Your task to perform on an android device: Open location settings Image 0: 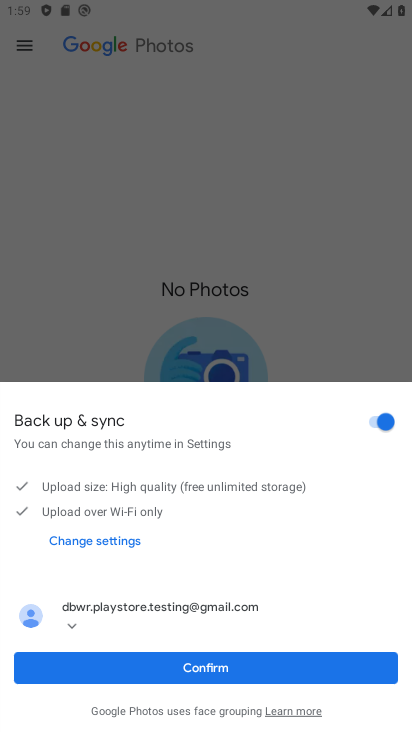
Step 0: press home button
Your task to perform on an android device: Open location settings Image 1: 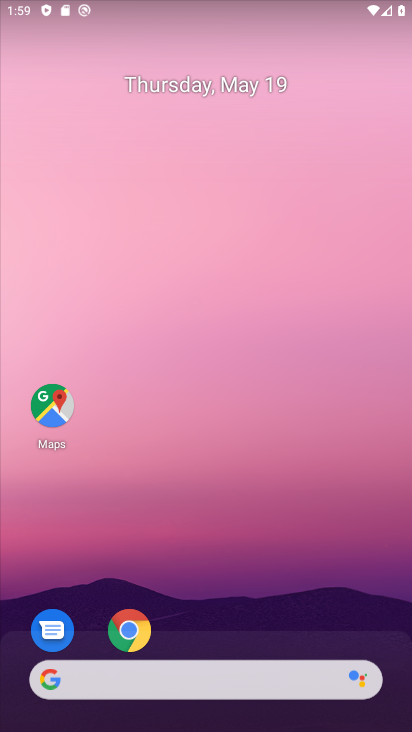
Step 1: drag from (379, 562) to (383, 155)
Your task to perform on an android device: Open location settings Image 2: 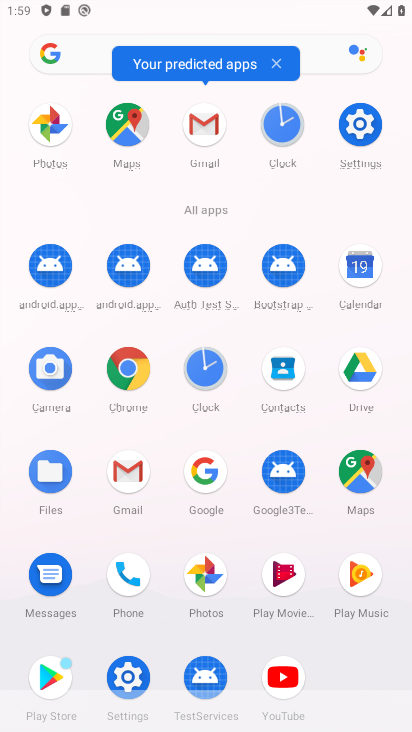
Step 2: click (356, 128)
Your task to perform on an android device: Open location settings Image 3: 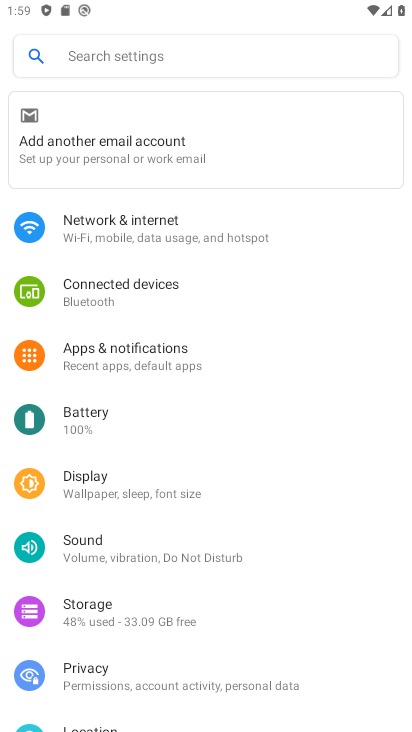
Step 3: drag from (132, 655) to (193, 394)
Your task to perform on an android device: Open location settings Image 4: 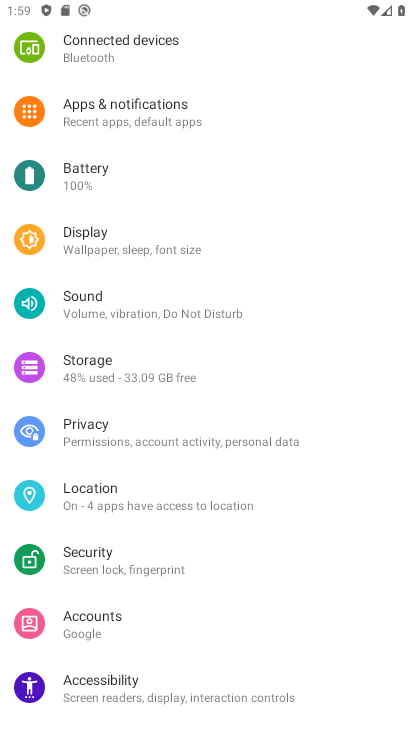
Step 4: click (95, 482)
Your task to perform on an android device: Open location settings Image 5: 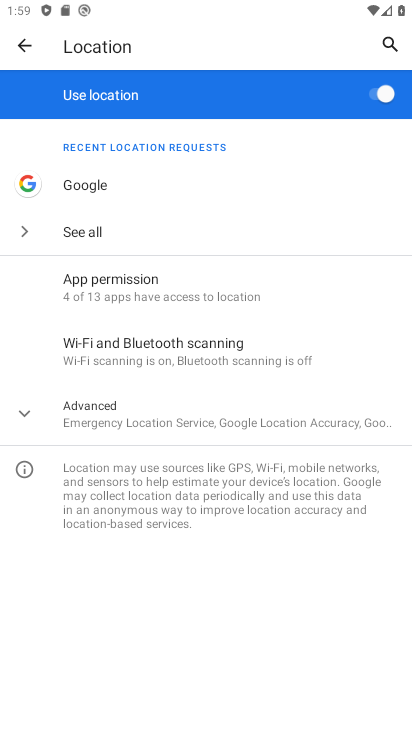
Step 5: click (239, 431)
Your task to perform on an android device: Open location settings Image 6: 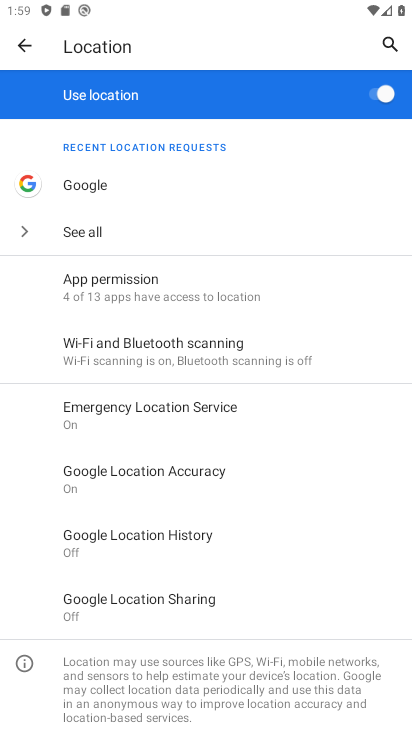
Step 6: task complete